Your task to perform on an android device: change notification settings in the gmail app Image 0: 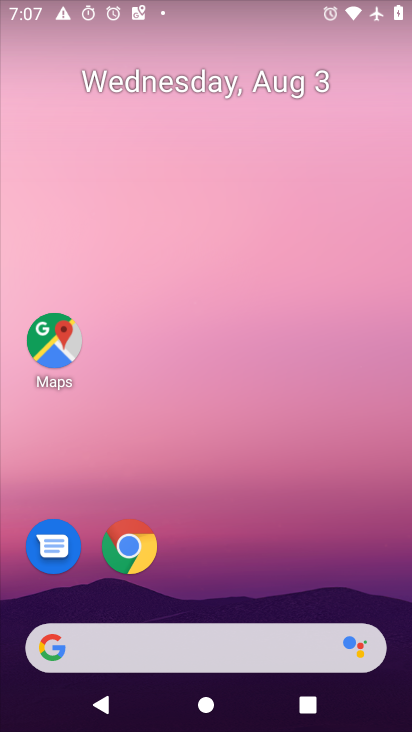
Step 0: press home button
Your task to perform on an android device: change notification settings in the gmail app Image 1: 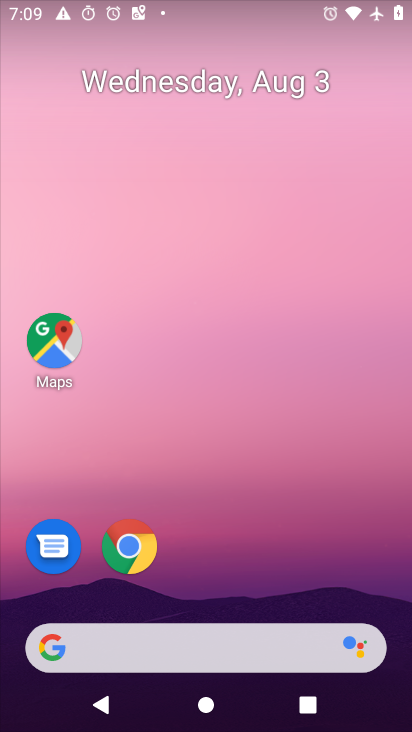
Step 1: drag from (211, 614) to (197, 1)
Your task to perform on an android device: change notification settings in the gmail app Image 2: 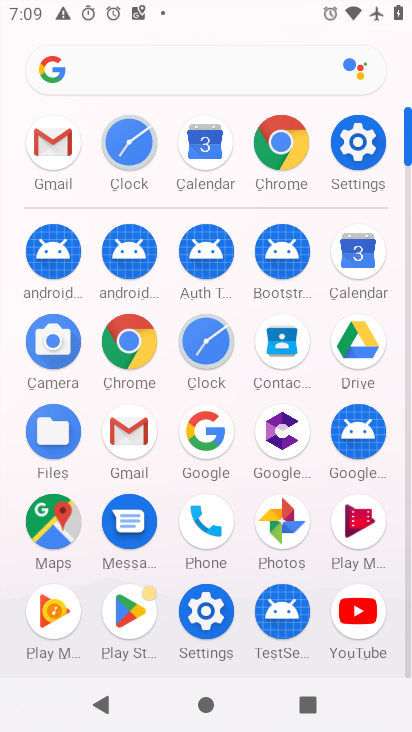
Step 2: click (52, 143)
Your task to perform on an android device: change notification settings in the gmail app Image 3: 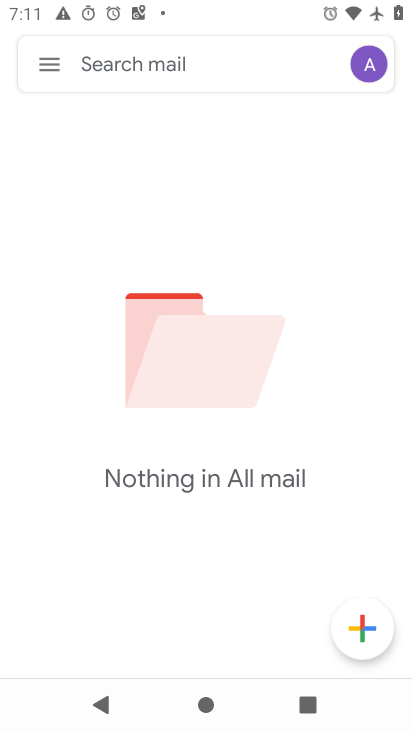
Step 3: click (50, 62)
Your task to perform on an android device: change notification settings in the gmail app Image 4: 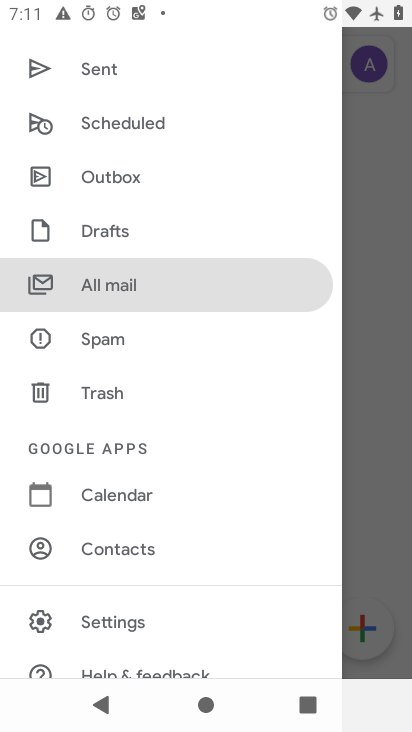
Step 4: click (114, 623)
Your task to perform on an android device: change notification settings in the gmail app Image 5: 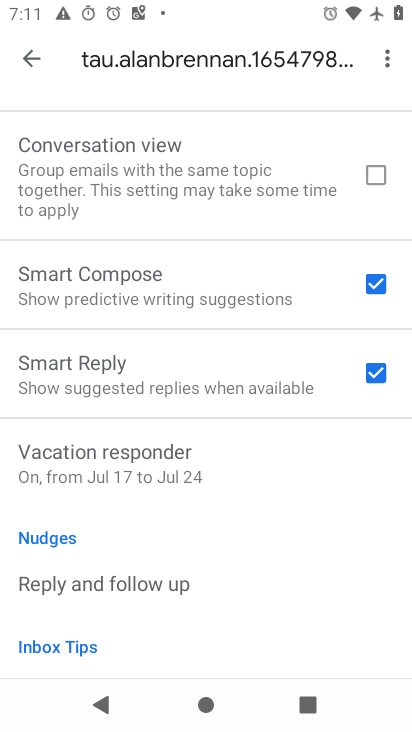
Step 5: drag from (241, 127) to (211, 664)
Your task to perform on an android device: change notification settings in the gmail app Image 6: 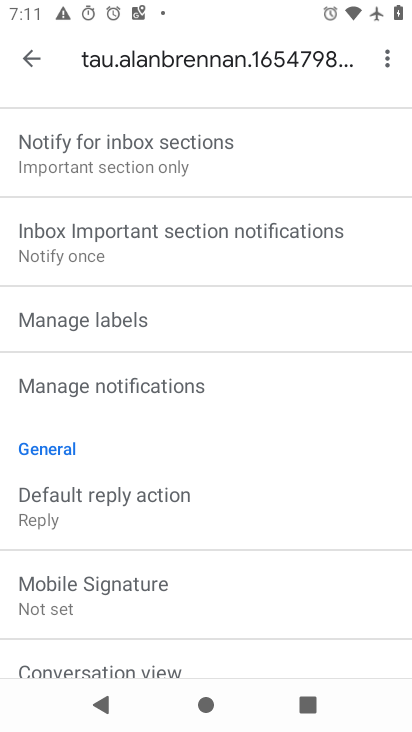
Step 6: click (95, 391)
Your task to perform on an android device: change notification settings in the gmail app Image 7: 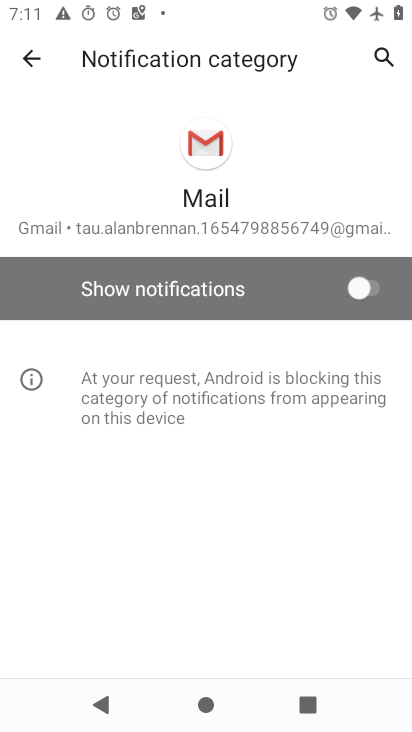
Step 7: click (364, 282)
Your task to perform on an android device: change notification settings in the gmail app Image 8: 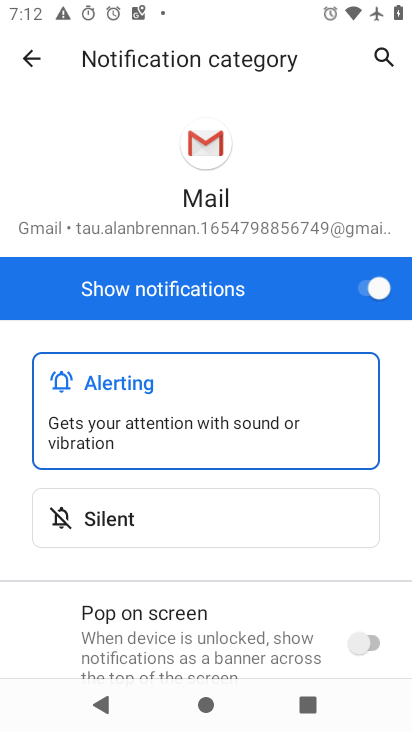
Step 8: task complete